Your task to perform on an android device: open app "Fetch Rewards" Image 0: 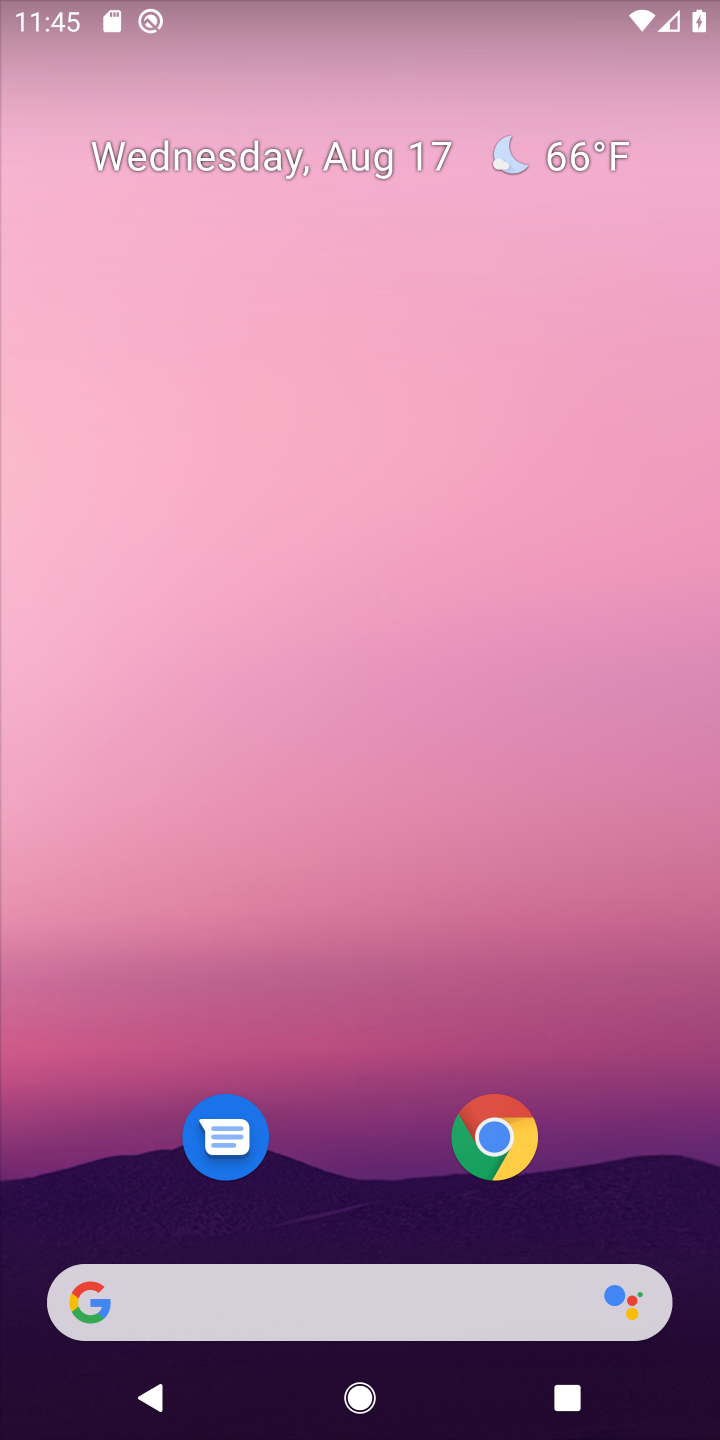
Step 0: press home button
Your task to perform on an android device: open app "Fetch Rewards" Image 1: 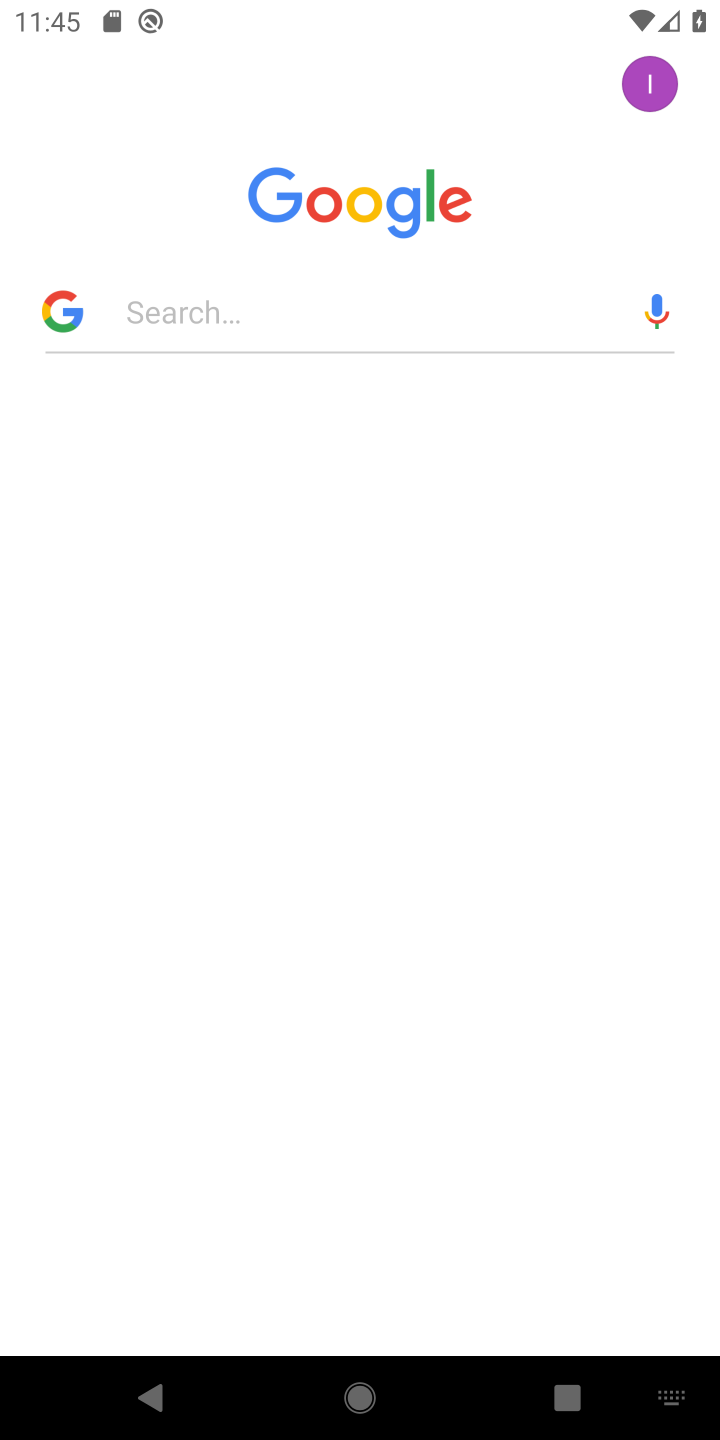
Step 1: drag from (456, 684) to (527, 464)
Your task to perform on an android device: open app "Fetch Rewards" Image 2: 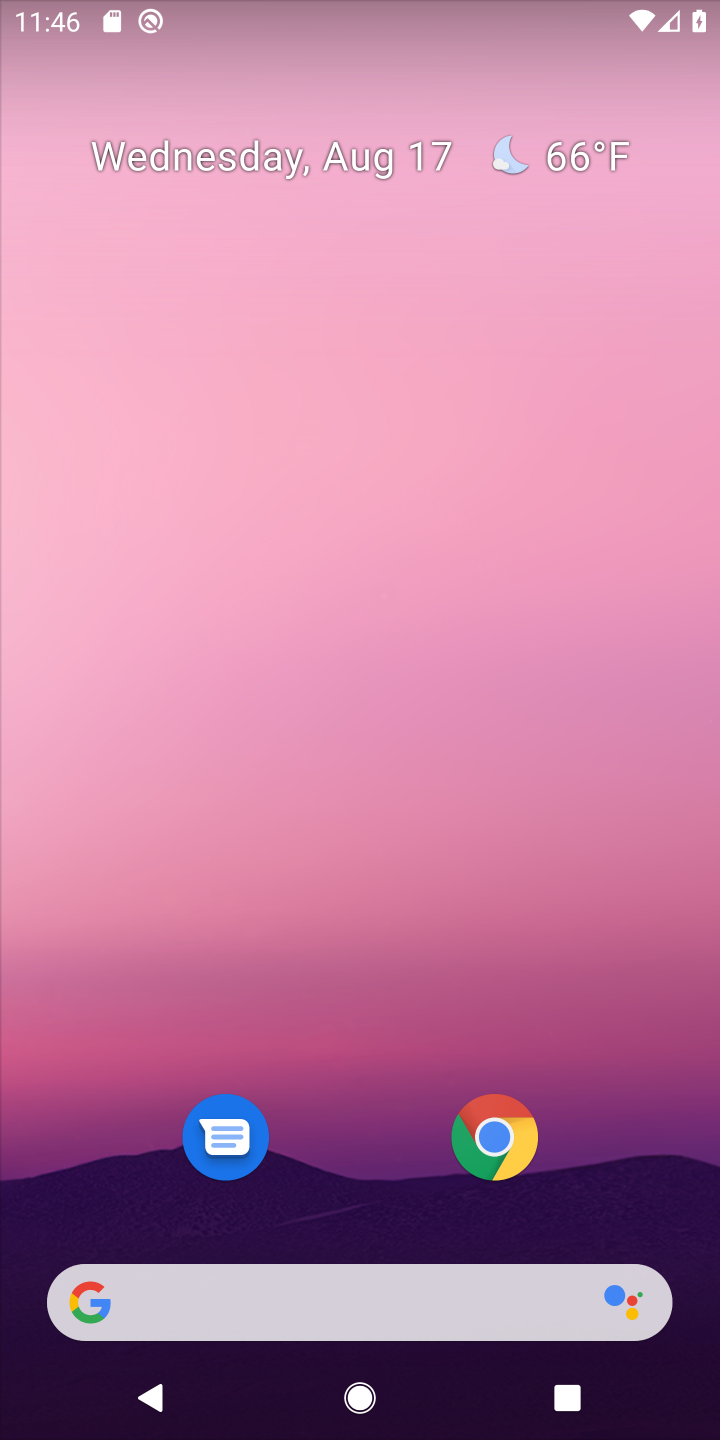
Step 2: drag from (330, 1106) to (429, 550)
Your task to perform on an android device: open app "Fetch Rewards" Image 3: 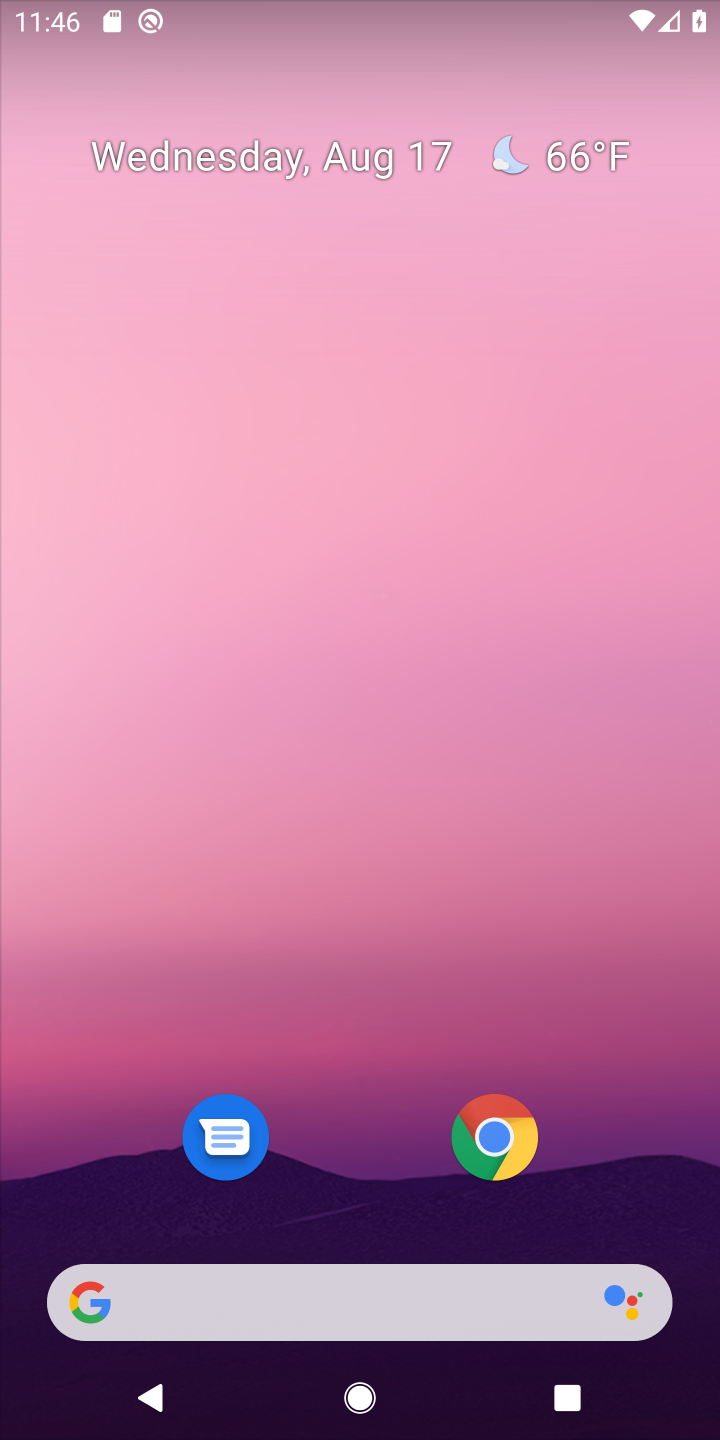
Step 3: drag from (457, 1196) to (438, 437)
Your task to perform on an android device: open app "Fetch Rewards" Image 4: 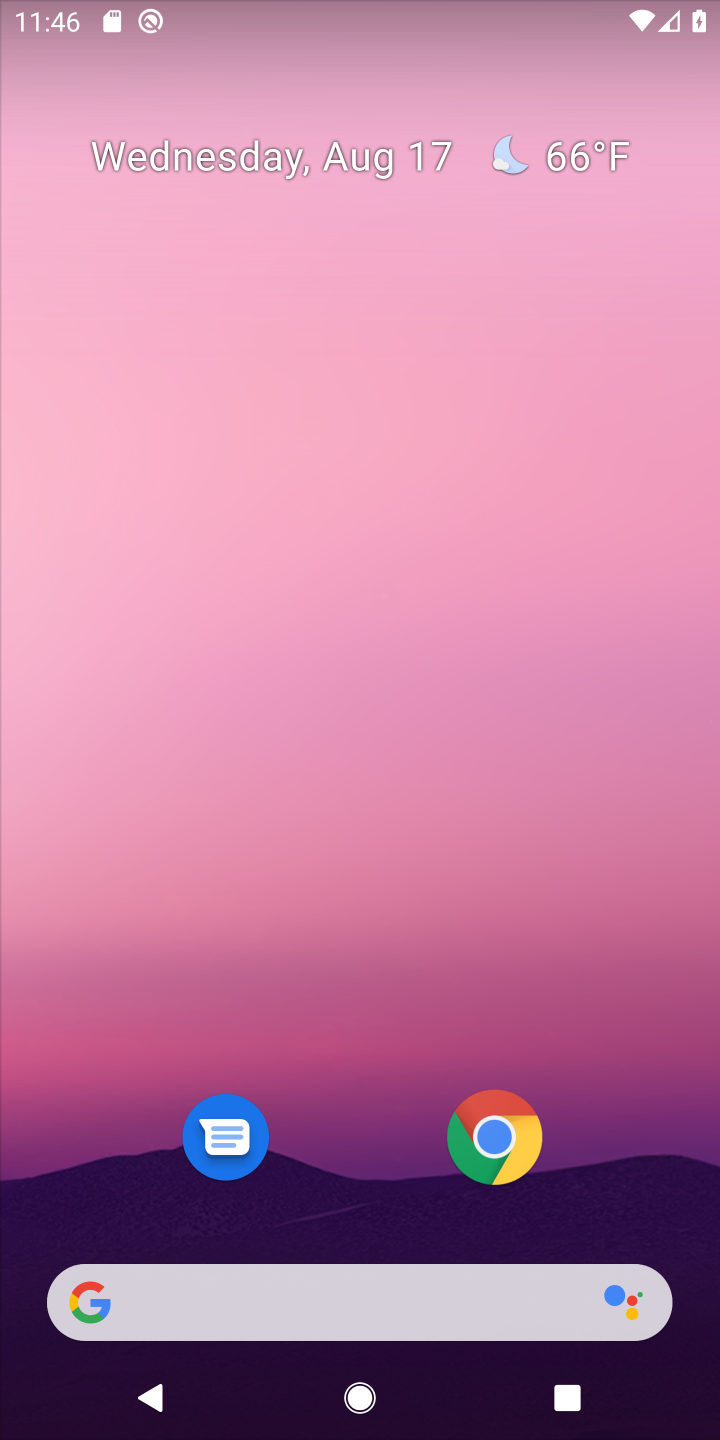
Step 4: drag from (393, 1158) to (464, 377)
Your task to perform on an android device: open app "Fetch Rewards" Image 5: 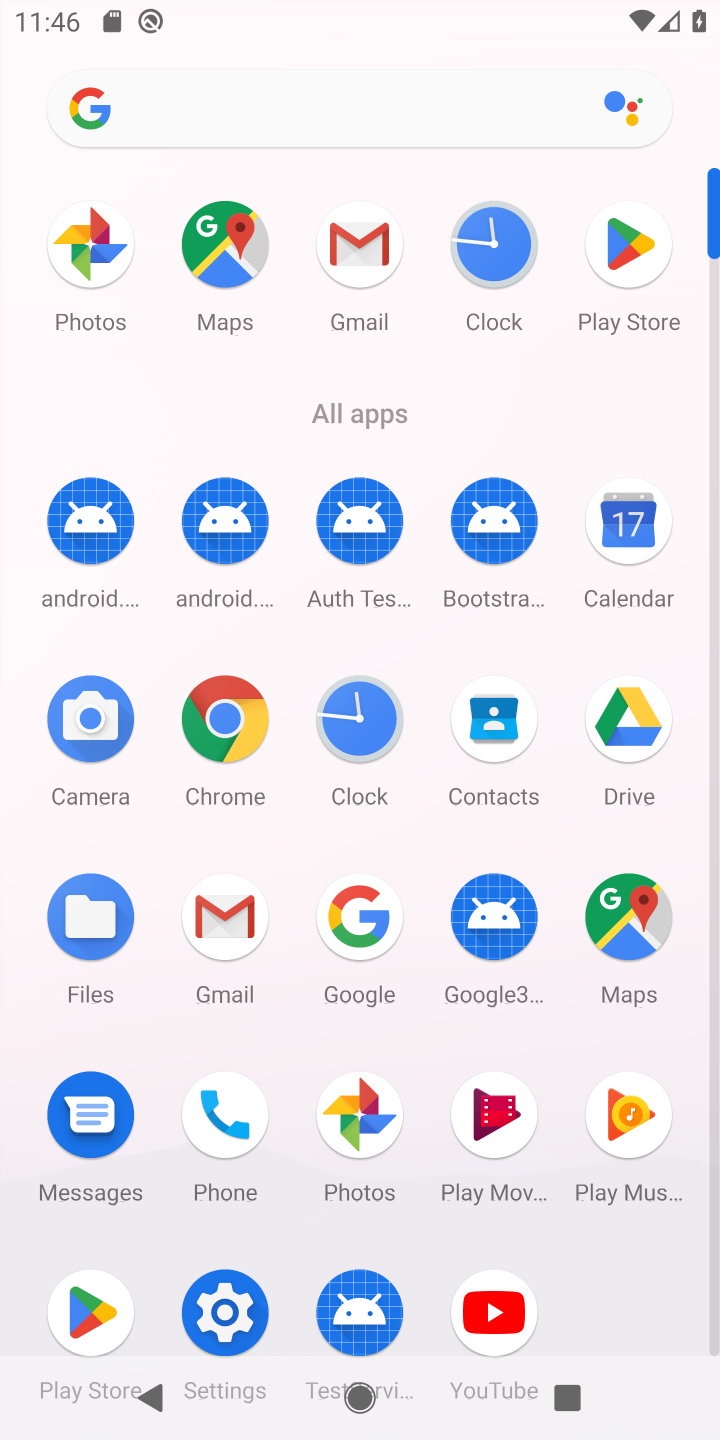
Step 5: click (609, 244)
Your task to perform on an android device: open app "Fetch Rewards" Image 6: 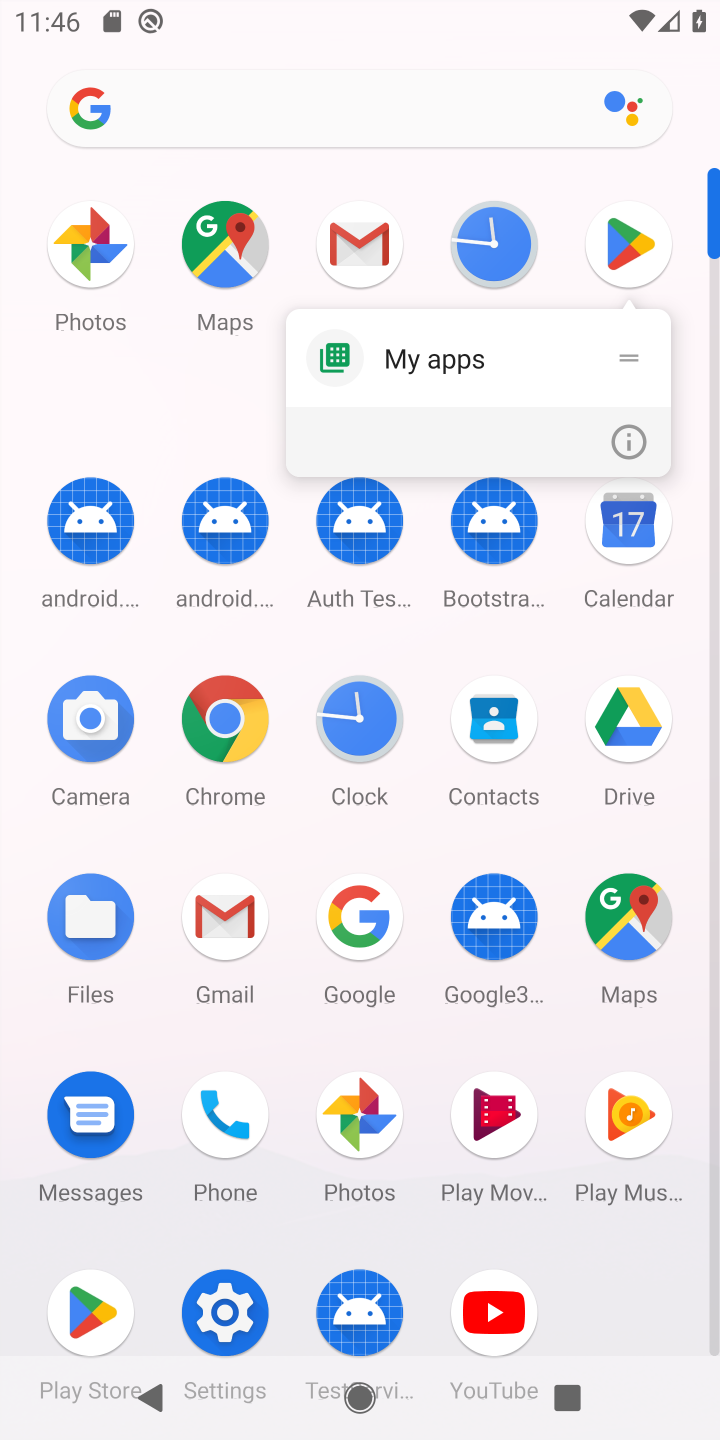
Step 6: click (629, 248)
Your task to perform on an android device: open app "Fetch Rewards" Image 7: 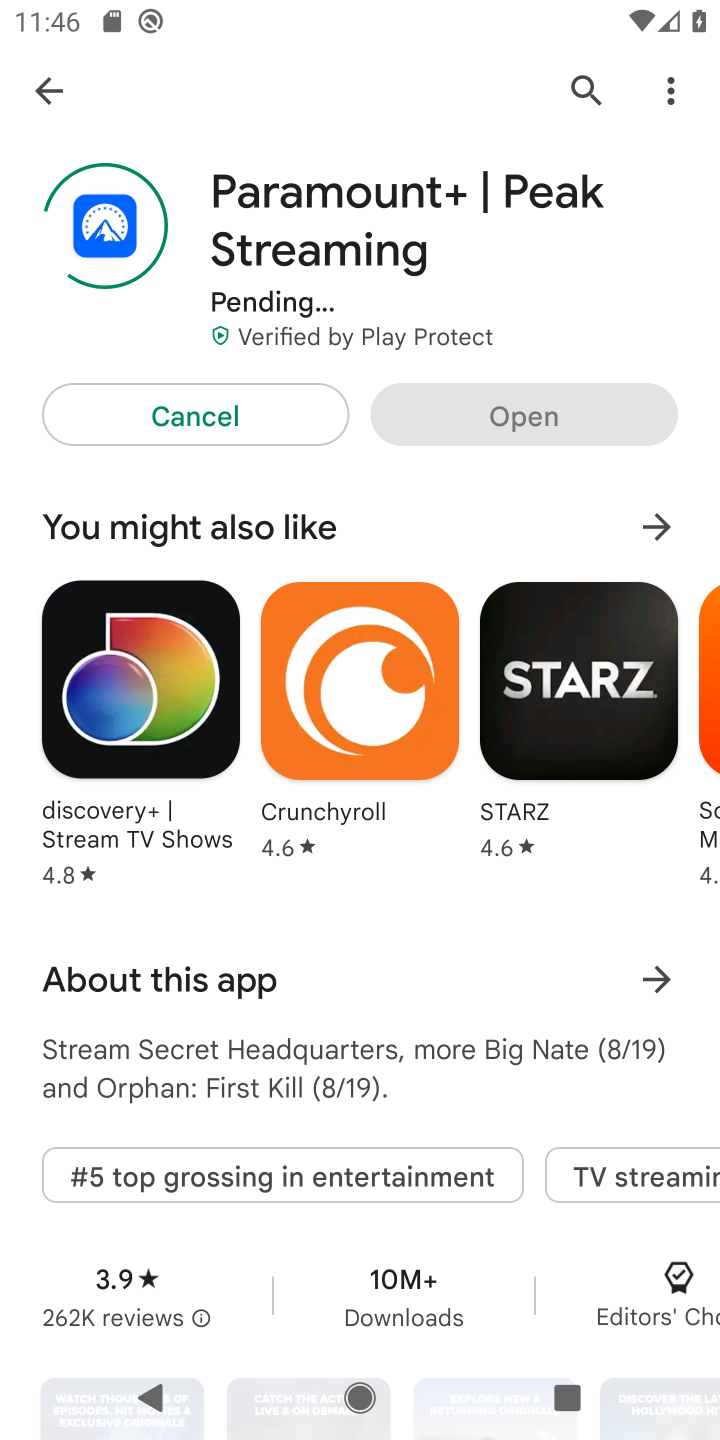
Step 7: click (55, 75)
Your task to perform on an android device: open app "Fetch Rewards" Image 8: 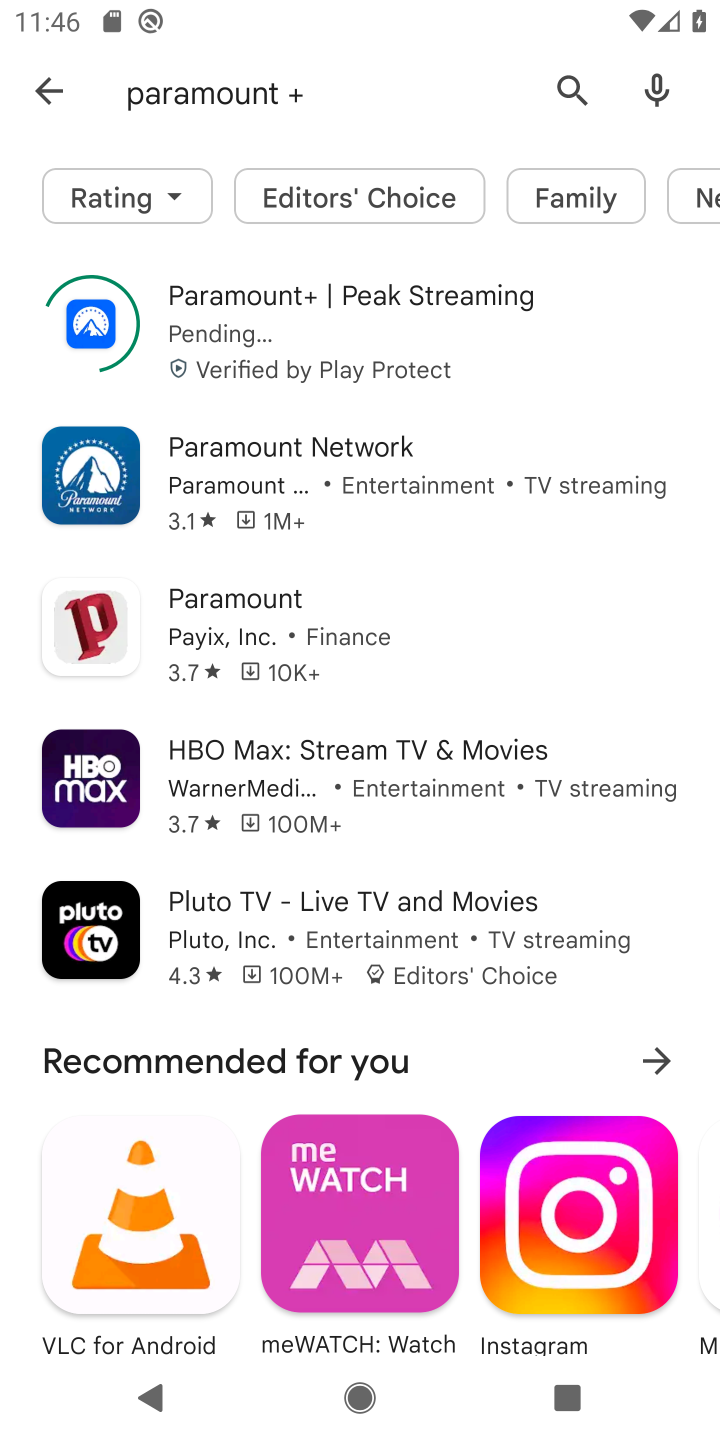
Step 8: click (574, 80)
Your task to perform on an android device: open app "Fetch Rewards" Image 9: 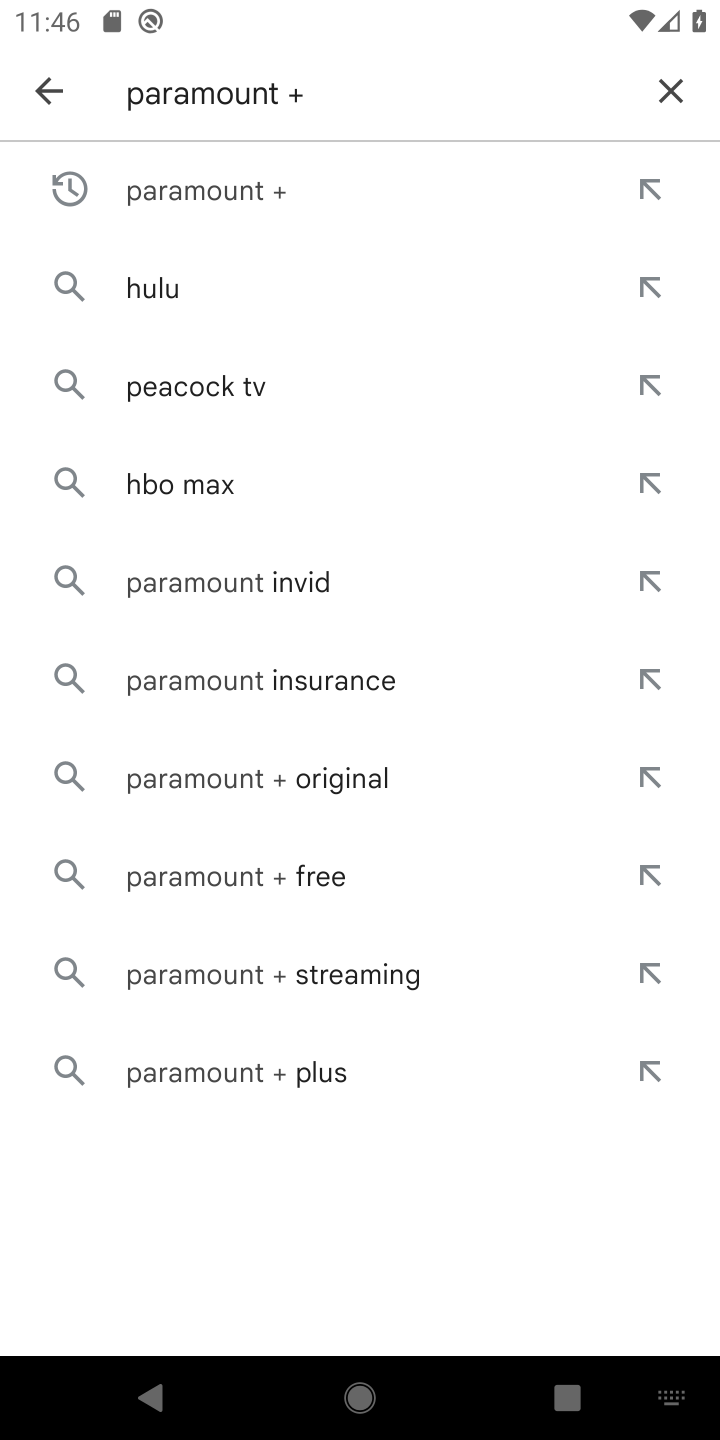
Step 9: click (684, 88)
Your task to perform on an android device: open app "Fetch Rewards" Image 10: 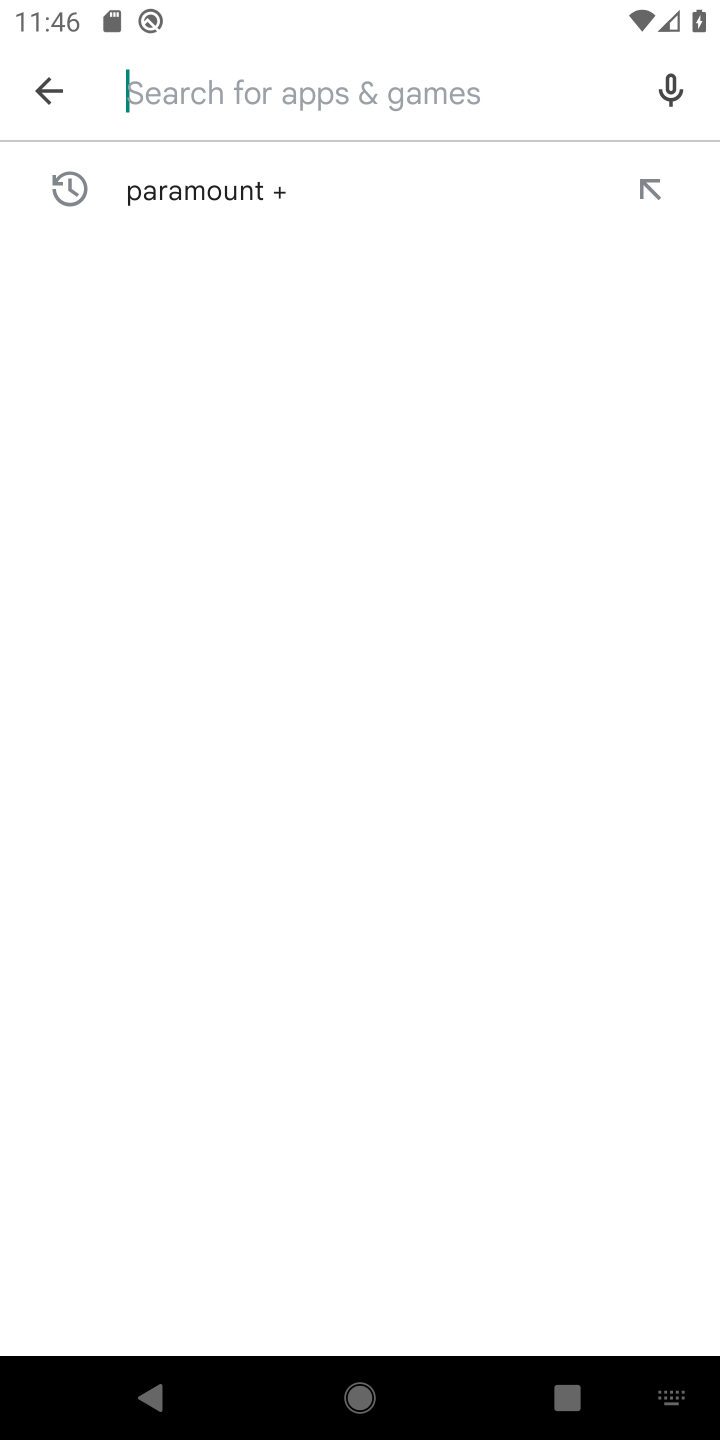
Step 10: click (455, 85)
Your task to perform on an android device: open app "Fetch Rewards" Image 11: 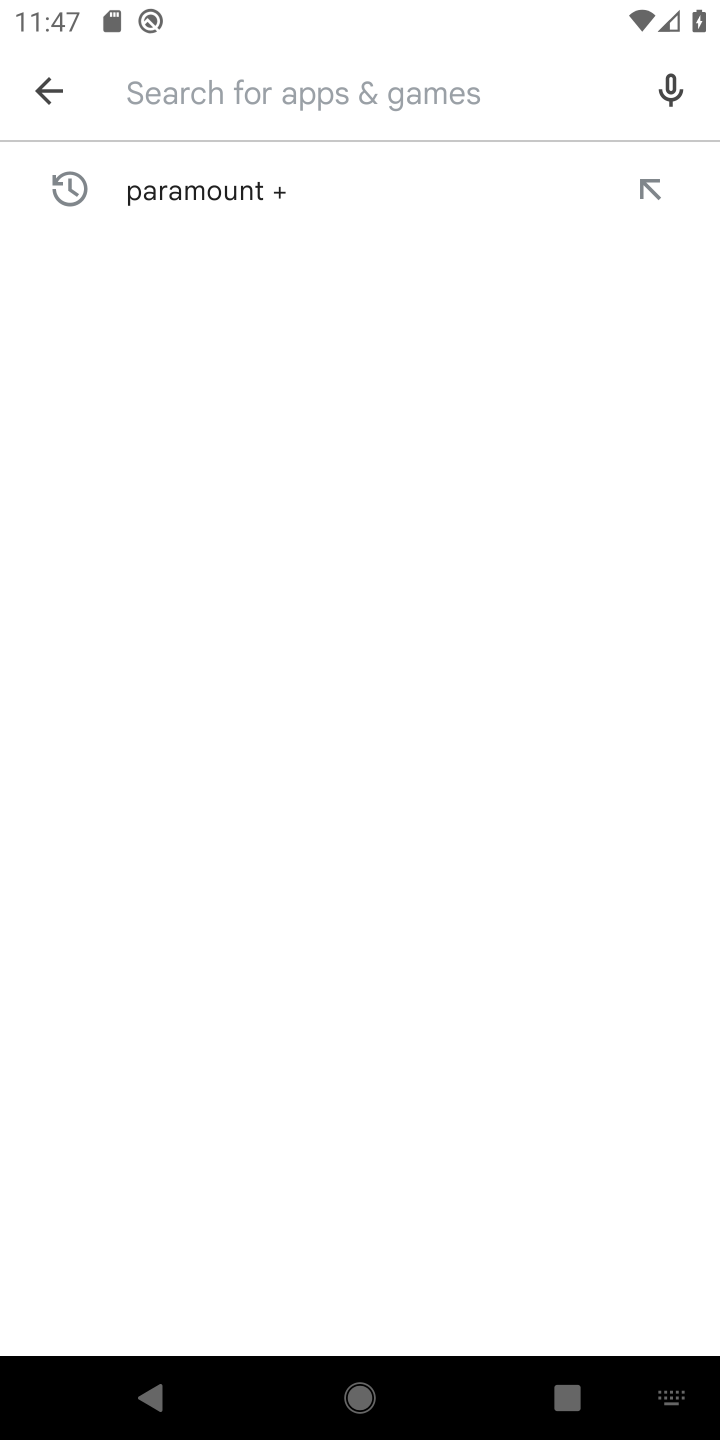
Step 11: type "Fetch Rewards "
Your task to perform on an android device: open app "Fetch Rewards" Image 12: 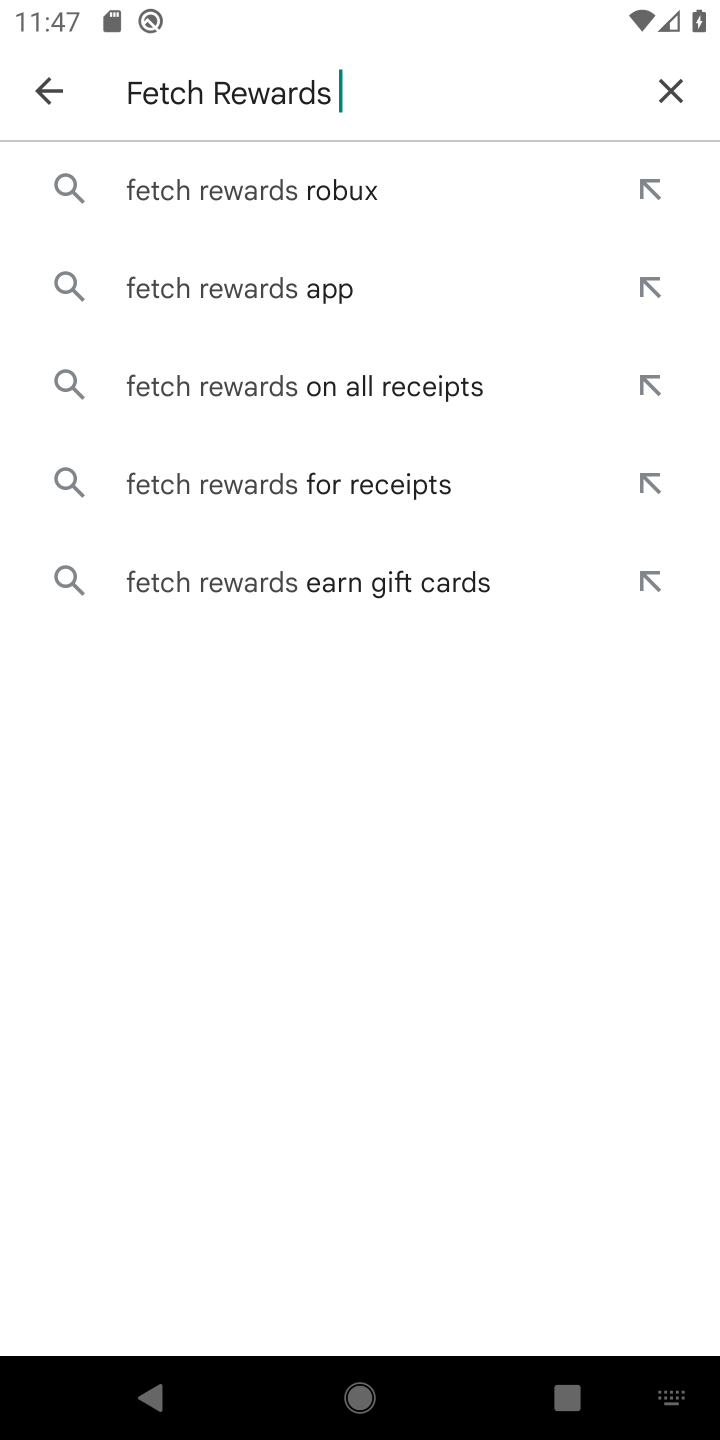
Step 12: click (356, 185)
Your task to perform on an android device: open app "Fetch Rewards" Image 13: 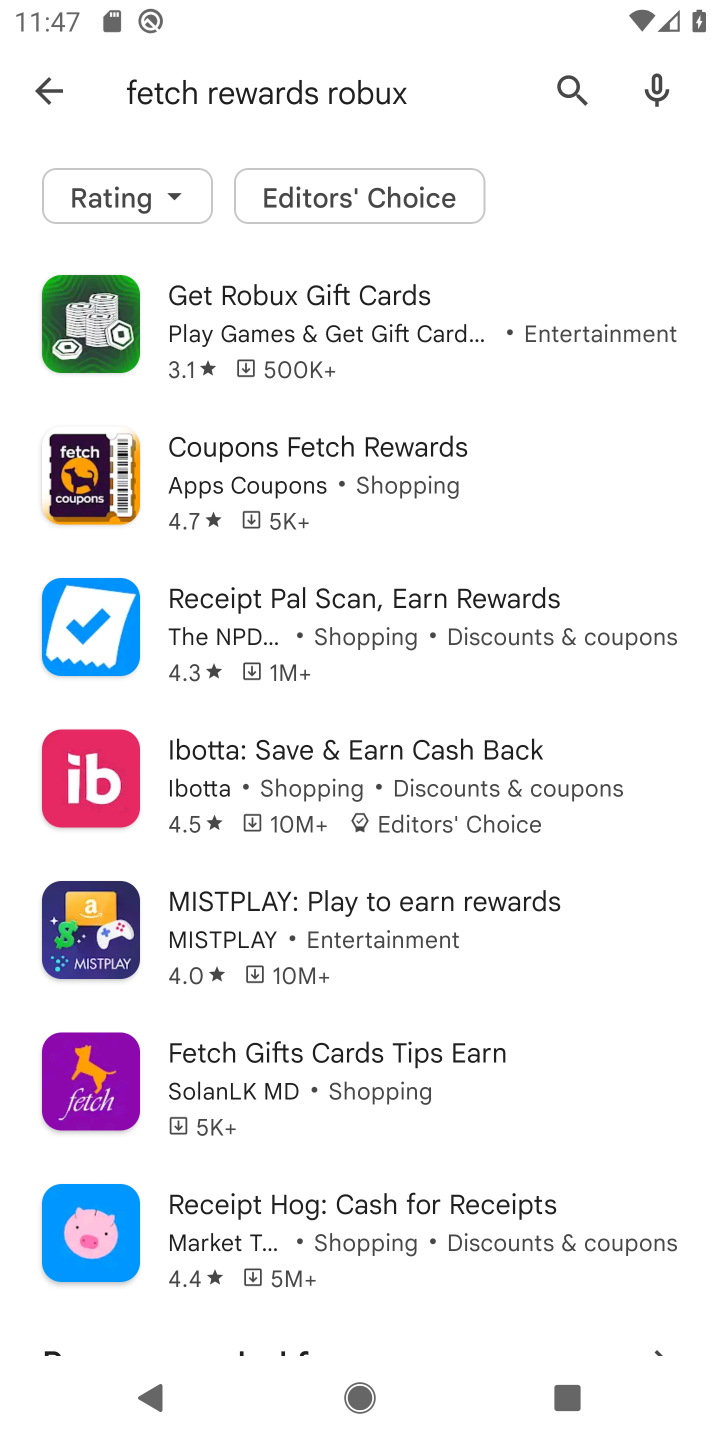
Step 13: click (376, 483)
Your task to perform on an android device: open app "Fetch Rewards" Image 14: 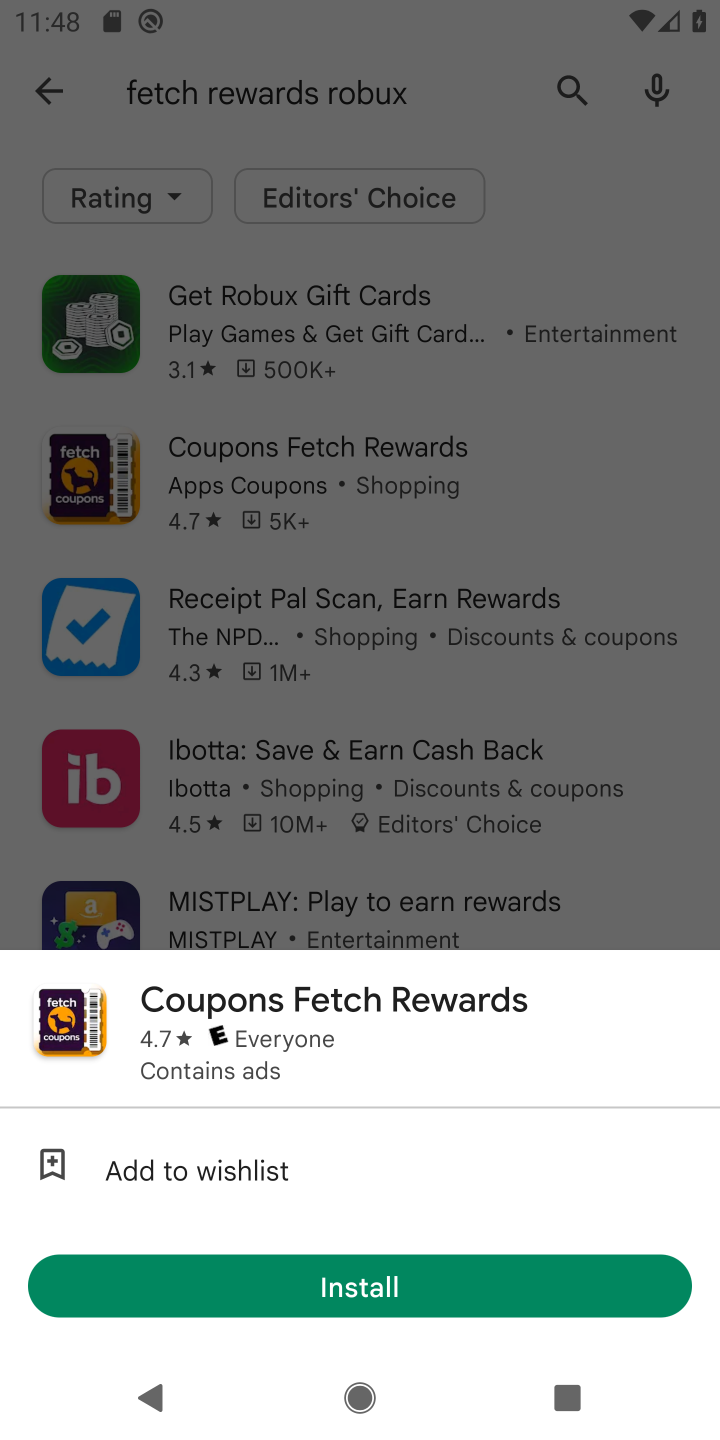
Step 14: click (407, 1286)
Your task to perform on an android device: open app "Fetch Rewards" Image 15: 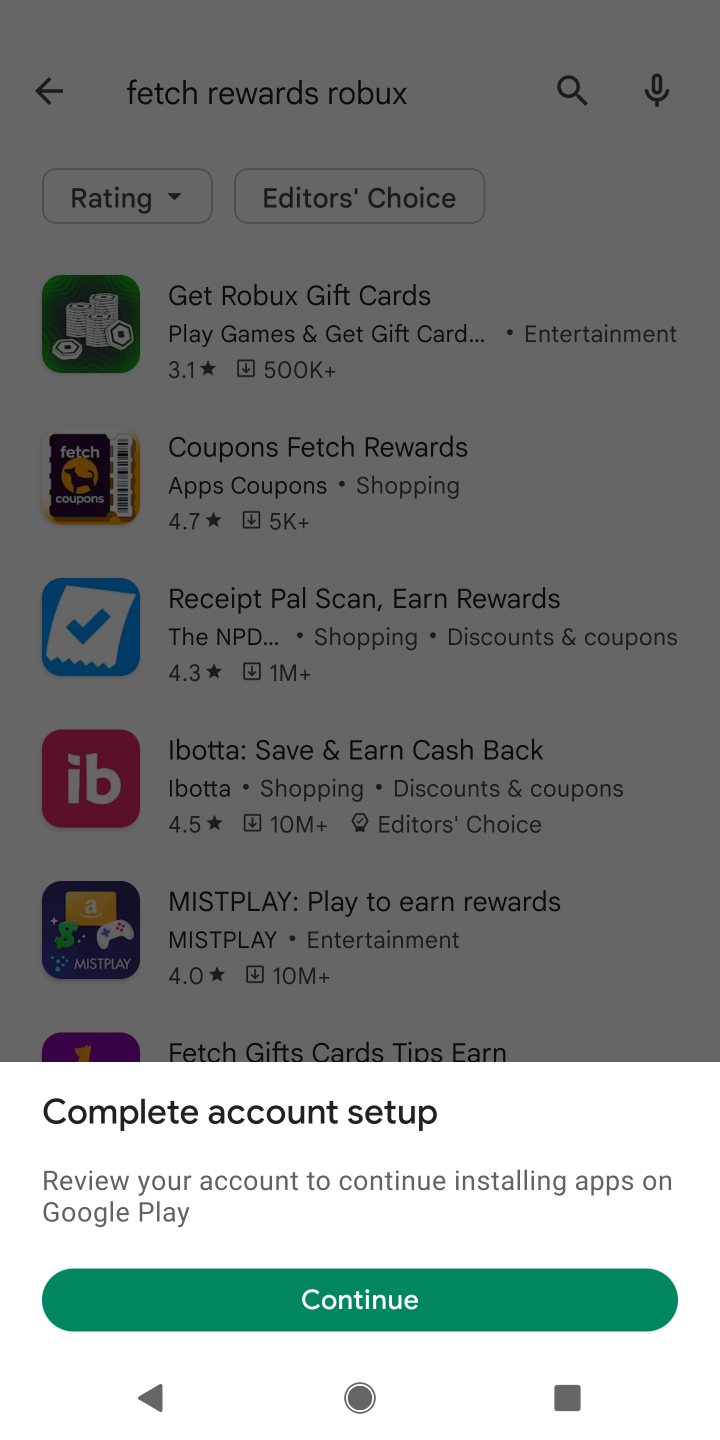
Step 15: task complete